Your task to perform on an android device: Search for pizza restaurants on Maps Image 0: 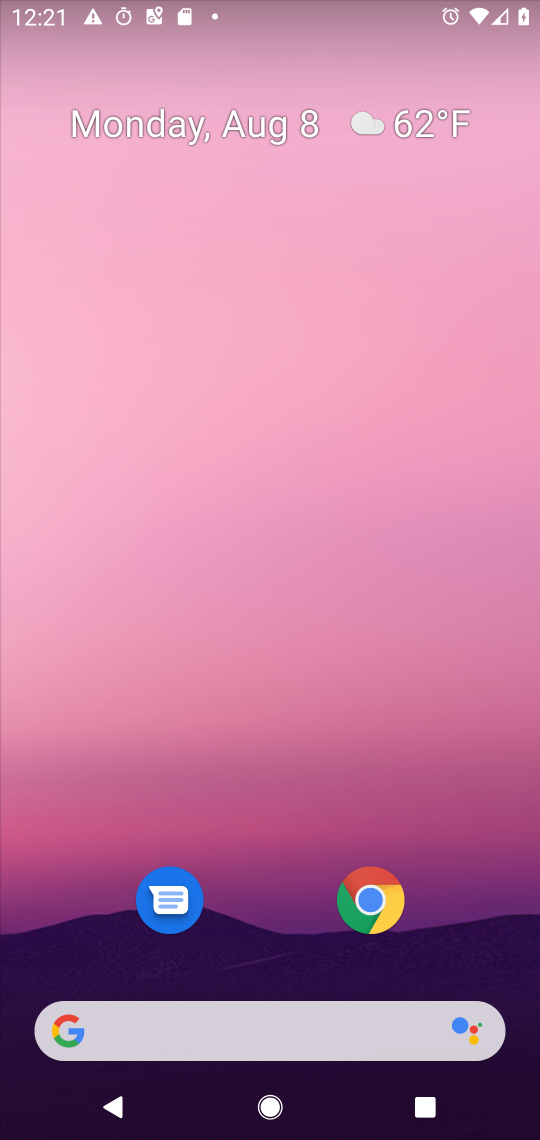
Step 0: press home button
Your task to perform on an android device: Search for pizza restaurants on Maps Image 1: 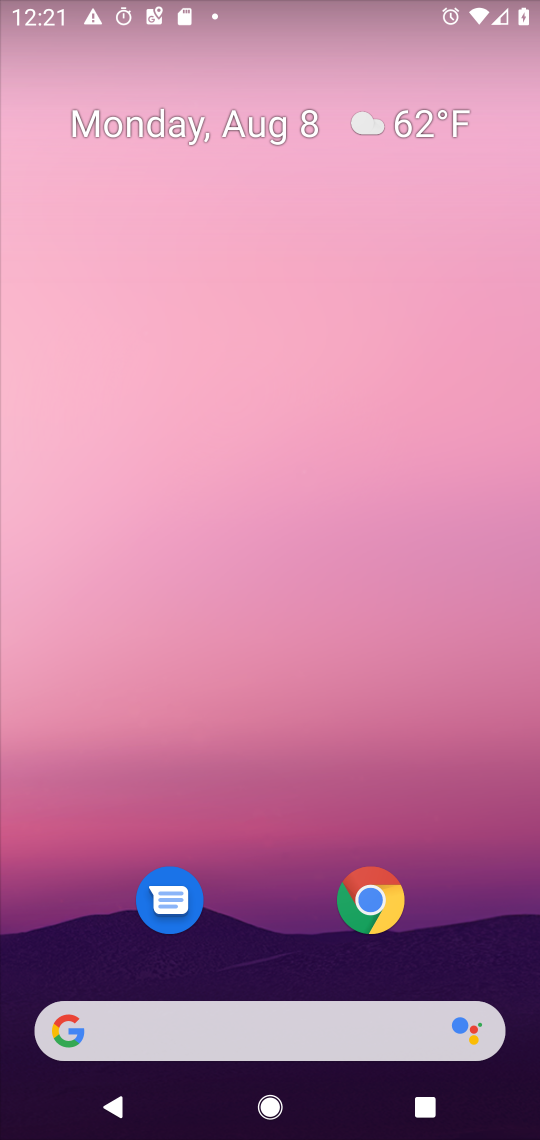
Step 1: drag from (32, 482) to (527, 549)
Your task to perform on an android device: Search for pizza restaurants on Maps Image 2: 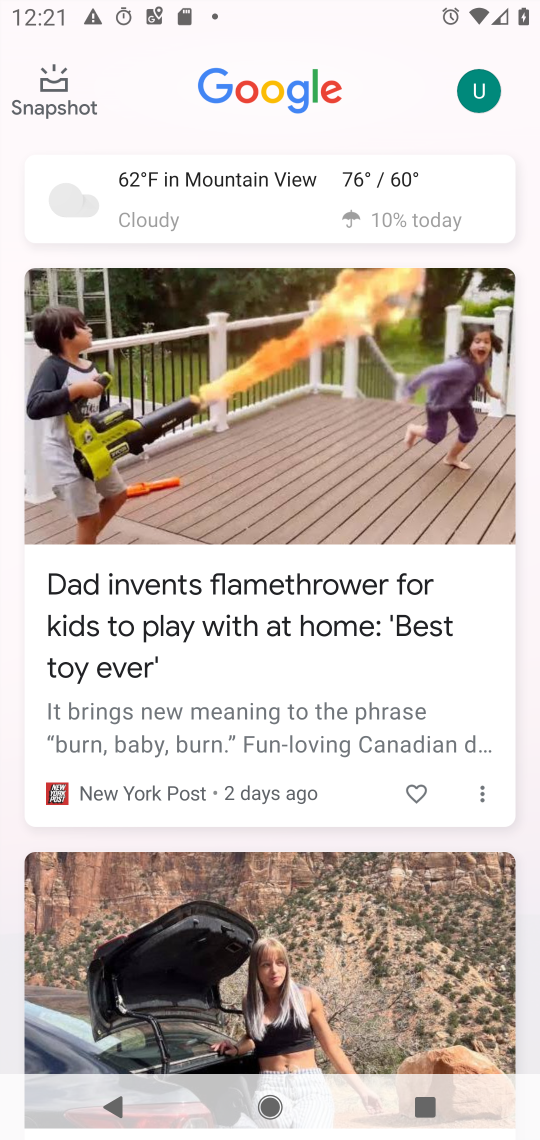
Step 2: press home button
Your task to perform on an android device: Search for pizza restaurants on Maps Image 3: 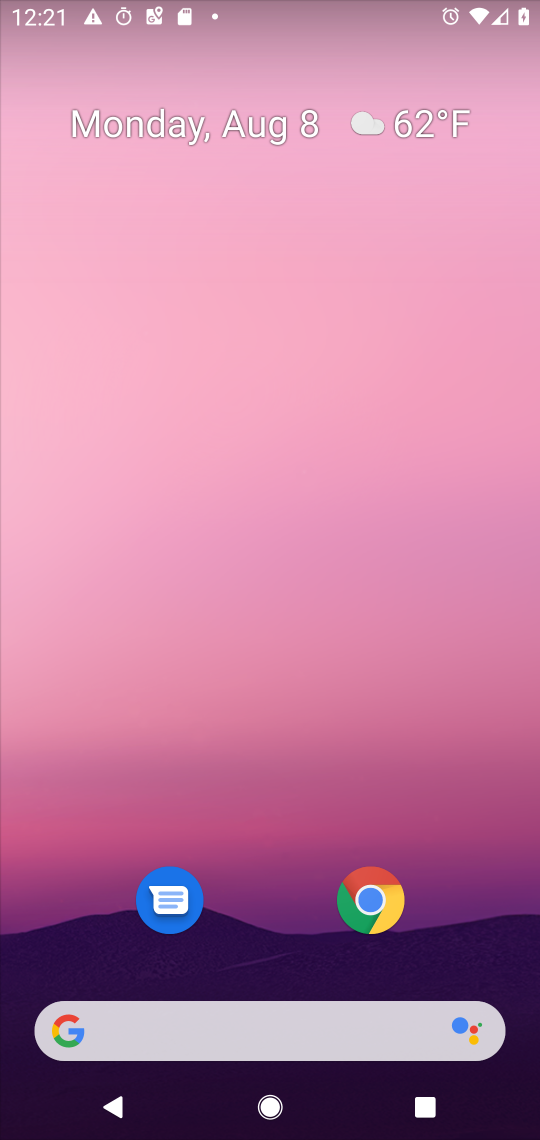
Step 3: drag from (236, 937) to (313, 86)
Your task to perform on an android device: Search for pizza restaurants on Maps Image 4: 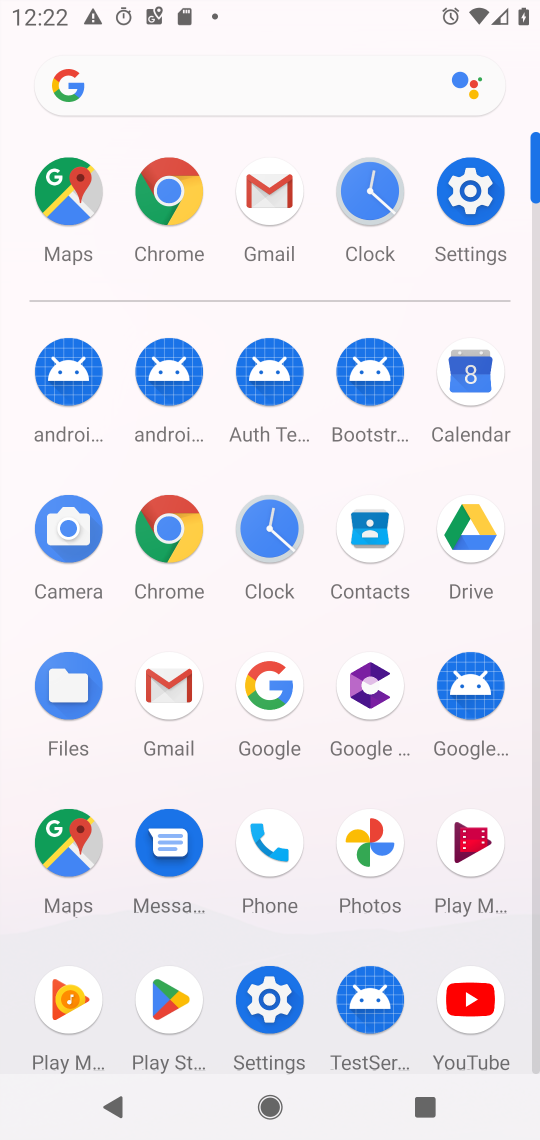
Step 4: click (57, 180)
Your task to perform on an android device: Search for pizza restaurants on Maps Image 5: 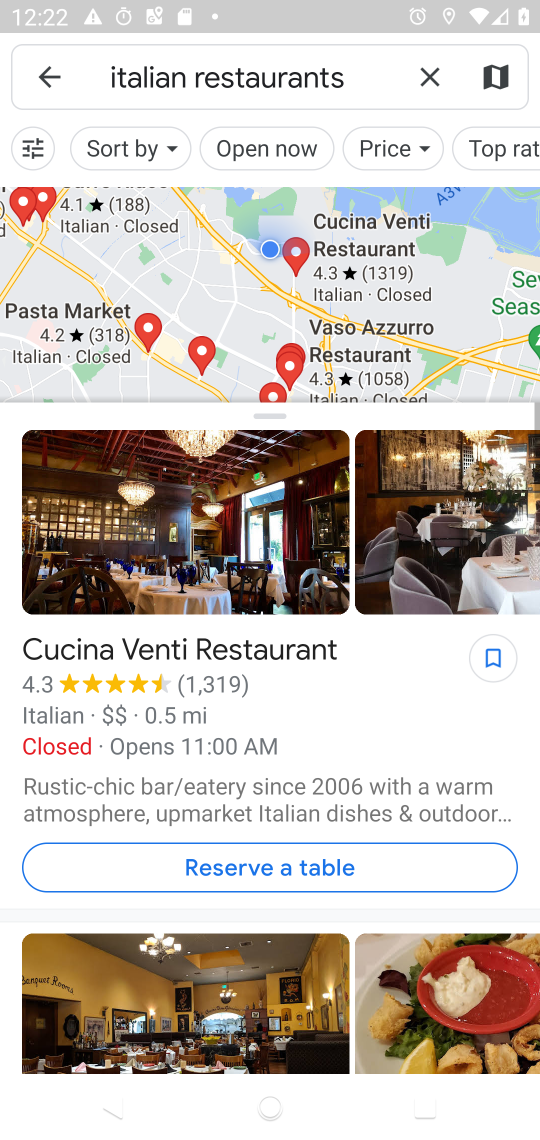
Step 5: click (431, 79)
Your task to perform on an android device: Search for pizza restaurants on Maps Image 6: 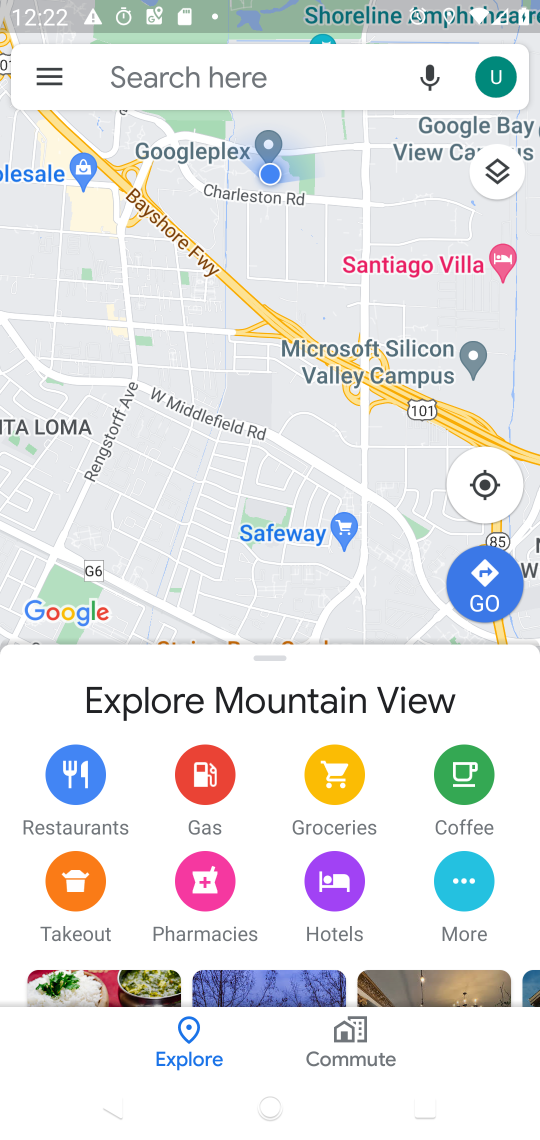
Step 6: type "pizza"
Your task to perform on an android device: Search for pizza restaurants on Maps Image 7: 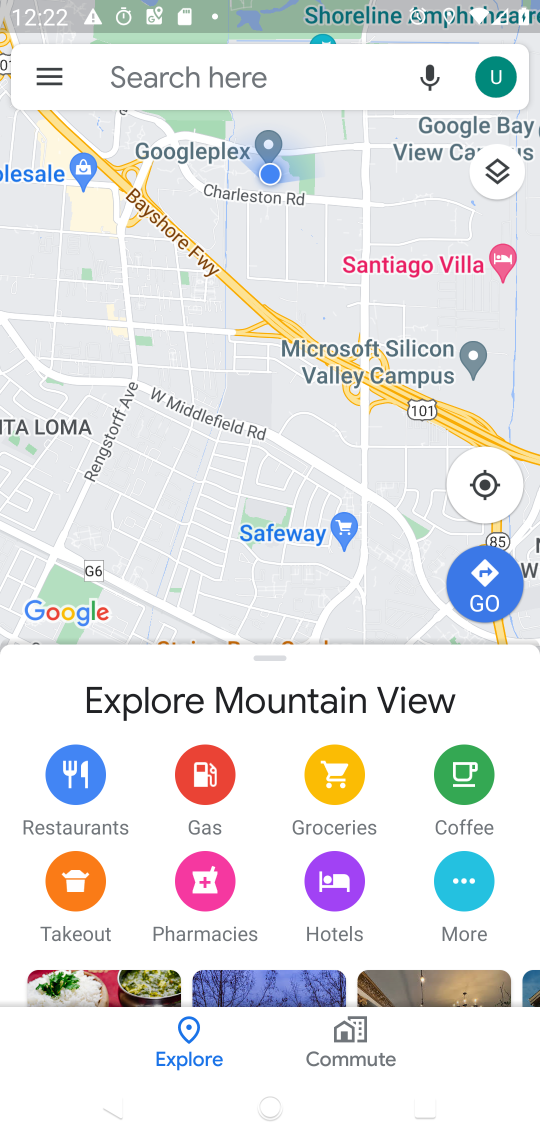
Step 7: click (149, 72)
Your task to perform on an android device: Search for pizza restaurants on Maps Image 8: 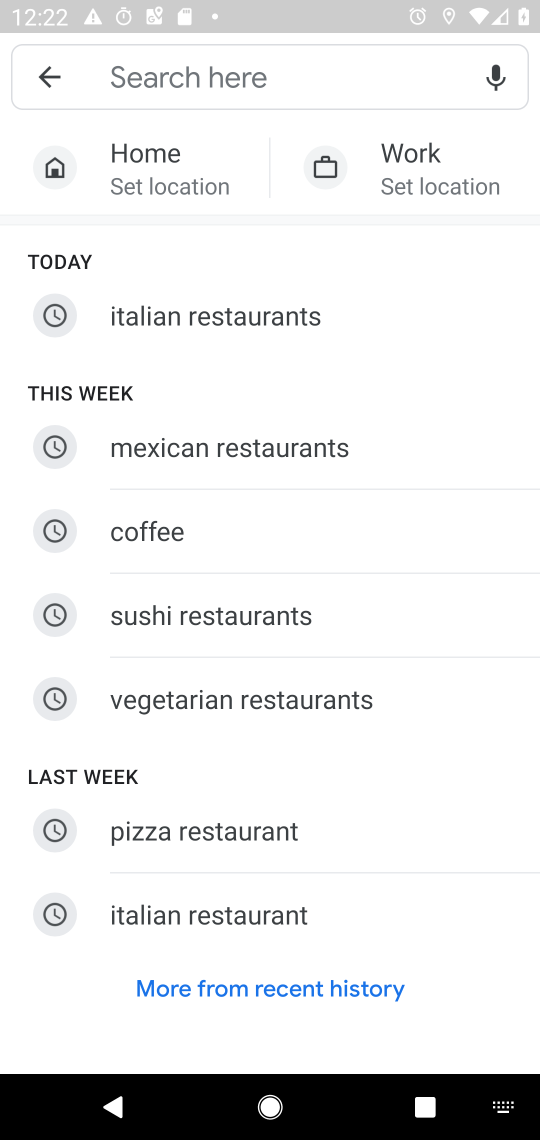
Step 8: click (181, 835)
Your task to perform on an android device: Search for pizza restaurants on Maps Image 9: 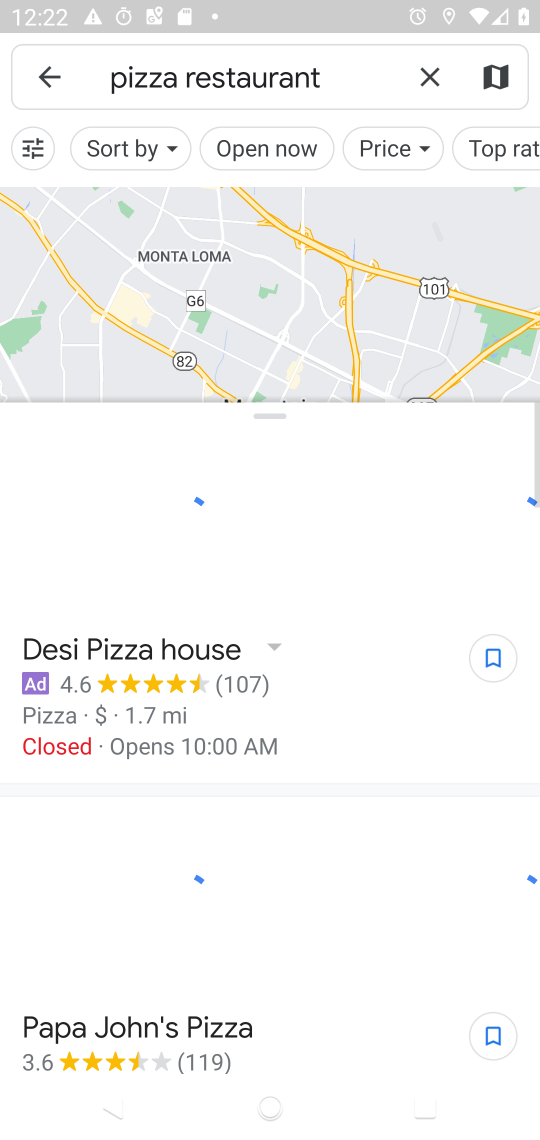
Step 9: task complete